Your task to perform on an android device: Open the calendar app, open the side menu, and click the "Day" option Image 0: 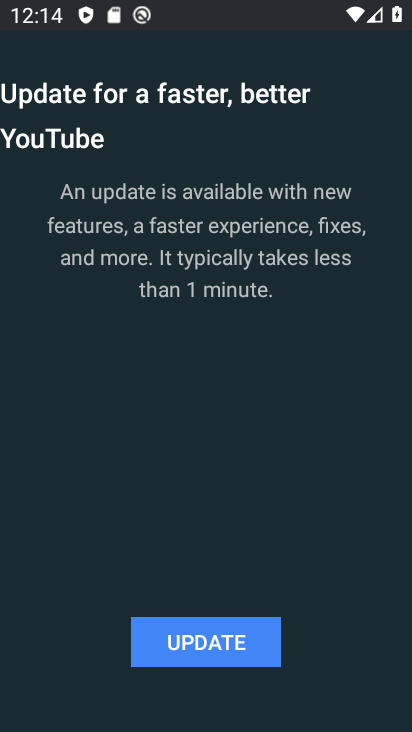
Step 0: press home button
Your task to perform on an android device: Open the calendar app, open the side menu, and click the "Day" option Image 1: 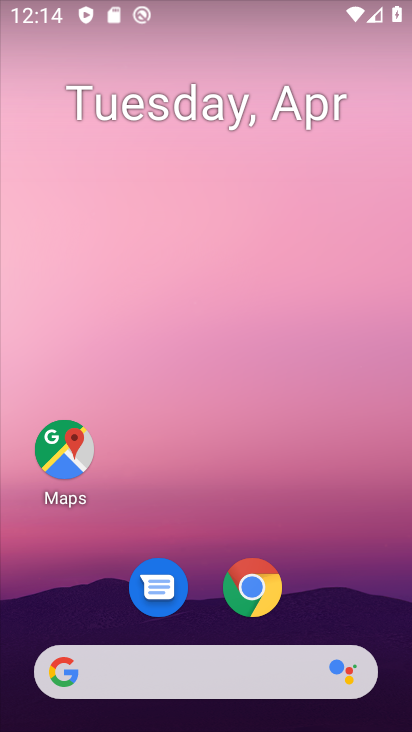
Step 1: drag from (340, 423) to (319, 138)
Your task to perform on an android device: Open the calendar app, open the side menu, and click the "Day" option Image 2: 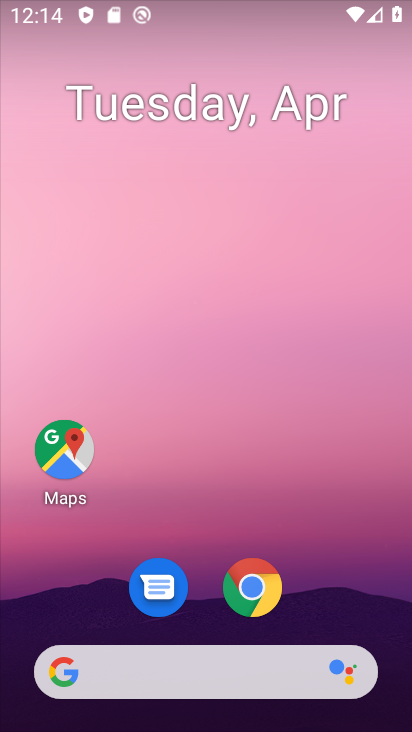
Step 2: drag from (296, 591) to (354, 149)
Your task to perform on an android device: Open the calendar app, open the side menu, and click the "Day" option Image 3: 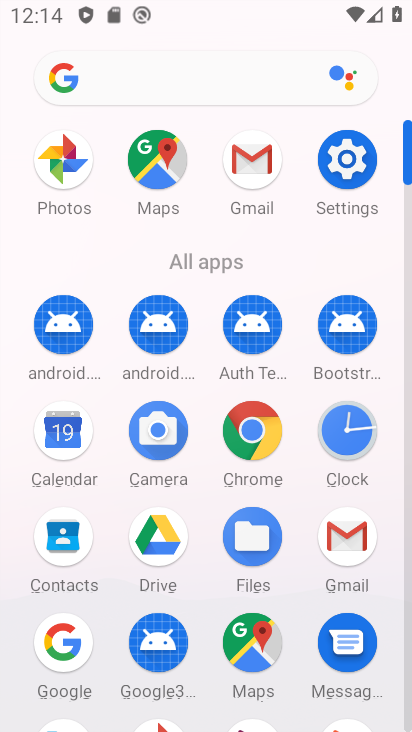
Step 3: click (56, 438)
Your task to perform on an android device: Open the calendar app, open the side menu, and click the "Day" option Image 4: 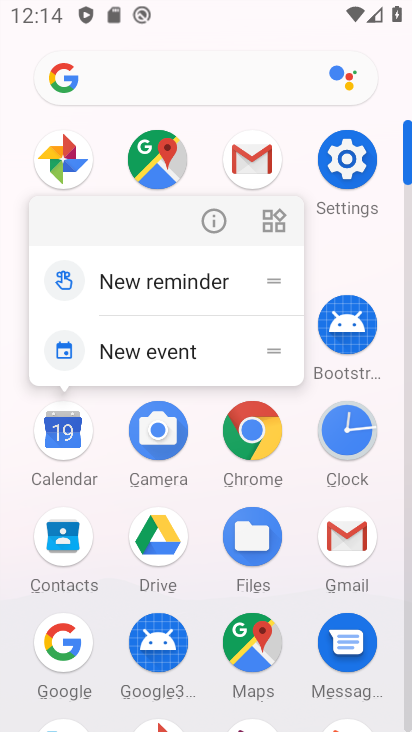
Step 4: click (56, 438)
Your task to perform on an android device: Open the calendar app, open the side menu, and click the "Day" option Image 5: 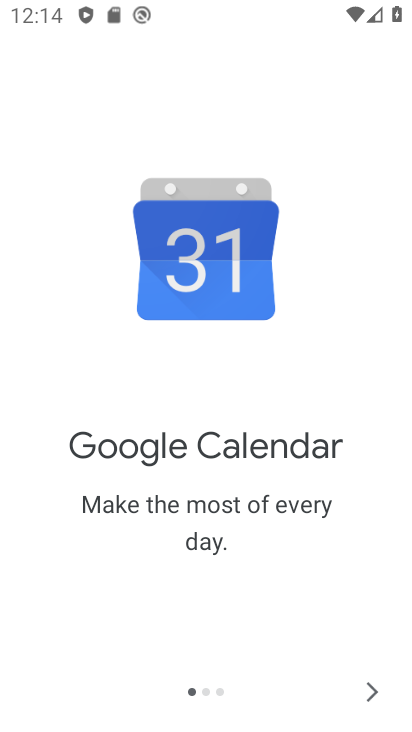
Step 5: click (381, 687)
Your task to perform on an android device: Open the calendar app, open the side menu, and click the "Day" option Image 6: 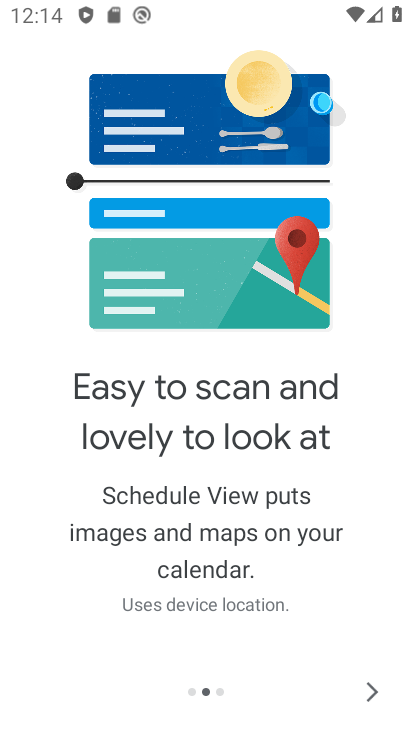
Step 6: click (381, 687)
Your task to perform on an android device: Open the calendar app, open the side menu, and click the "Day" option Image 7: 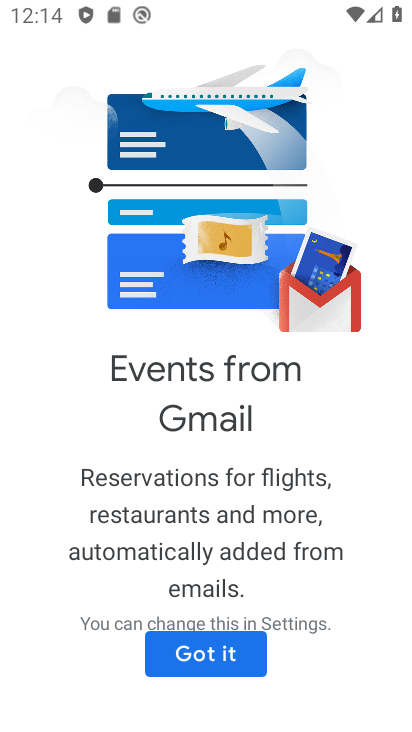
Step 7: click (213, 646)
Your task to perform on an android device: Open the calendar app, open the side menu, and click the "Day" option Image 8: 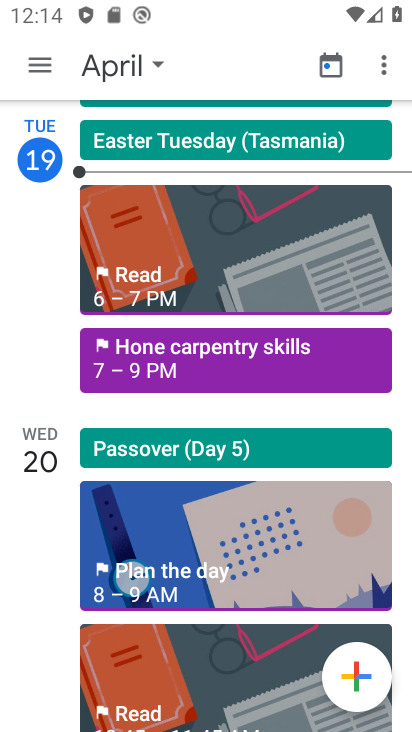
Step 8: click (41, 61)
Your task to perform on an android device: Open the calendar app, open the side menu, and click the "Day" option Image 9: 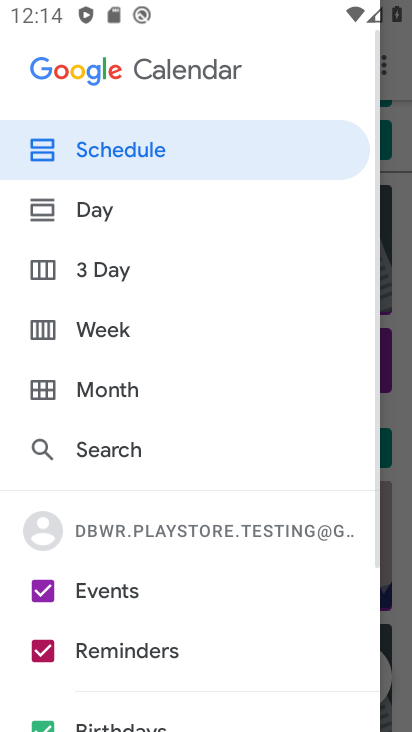
Step 9: click (104, 203)
Your task to perform on an android device: Open the calendar app, open the side menu, and click the "Day" option Image 10: 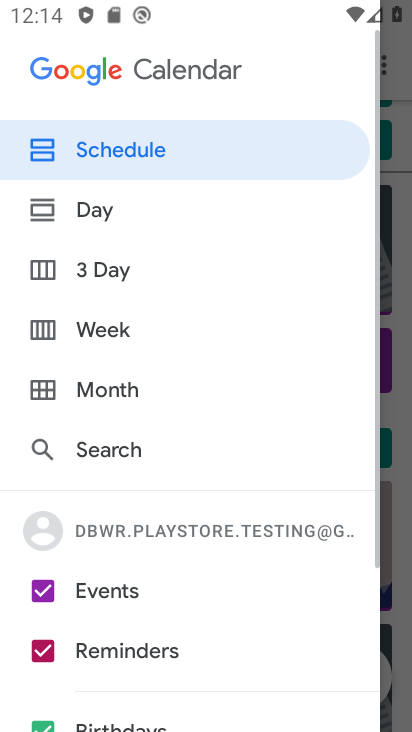
Step 10: click (100, 208)
Your task to perform on an android device: Open the calendar app, open the side menu, and click the "Day" option Image 11: 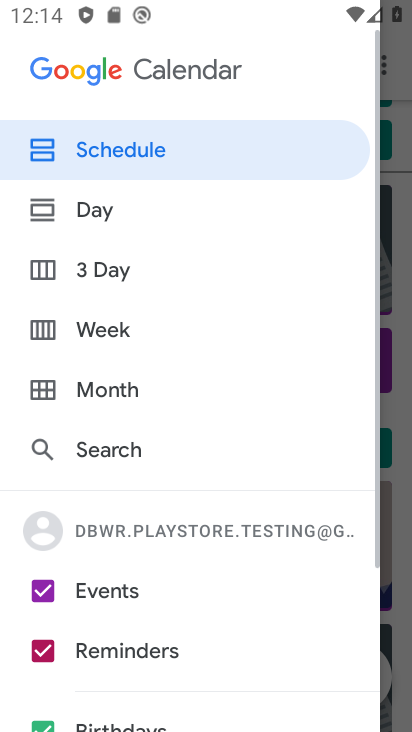
Step 11: click (100, 213)
Your task to perform on an android device: Open the calendar app, open the side menu, and click the "Day" option Image 12: 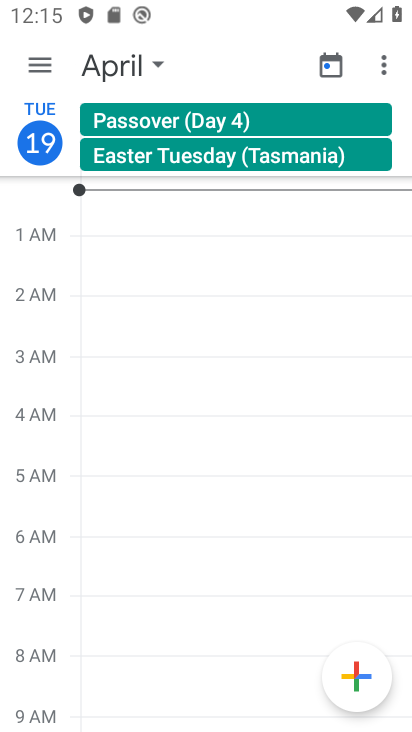
Step 12: task complete